Your task to perform on an android device: clear history in the chrome app Image 0: 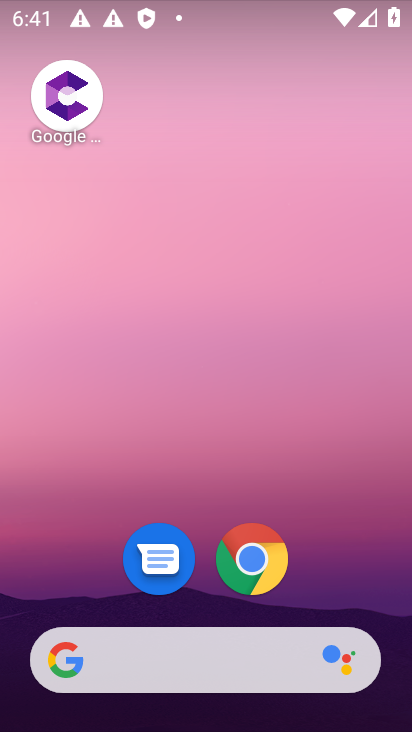
Step 0: click (252, 559)
Your task to perform on an android device: clear history in the chrome app Image 1: 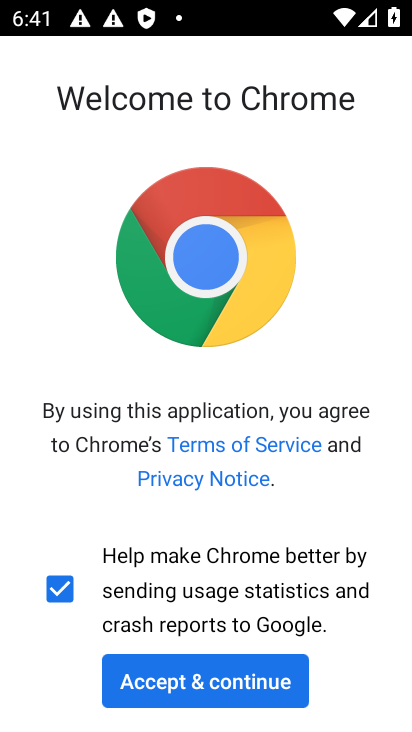
Step 1: click (190, 665)
Your task to perform on an android device: clear history in the chrome app Image 2: 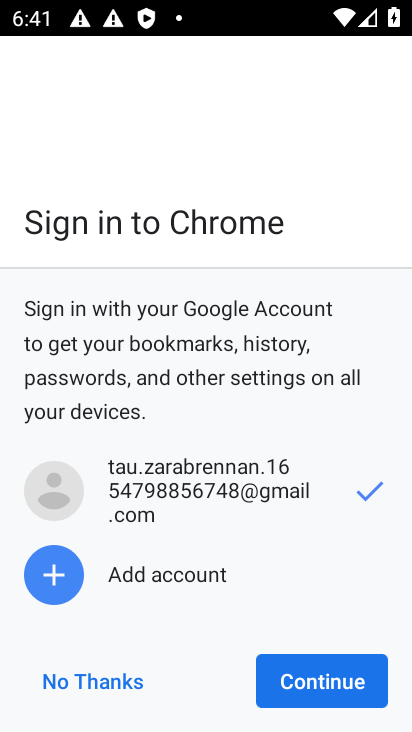
Step 2: click (296, 683)
Your task to perform on an android device: clear history in the chrome app Image 3: 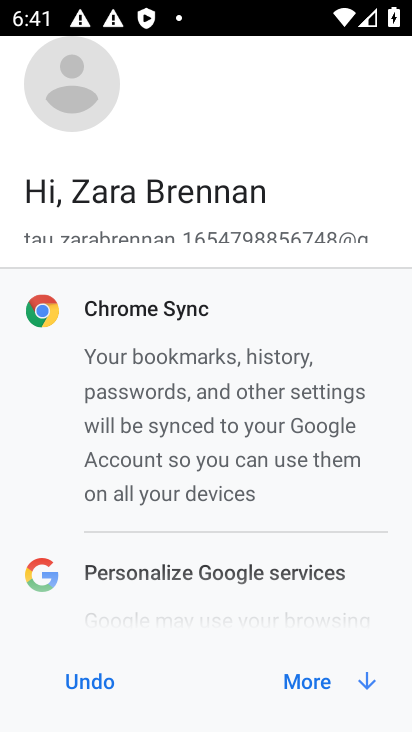
Step 3: click (296, 683)
Your task to perform on an android device: clear history in the chrome app Image 4: 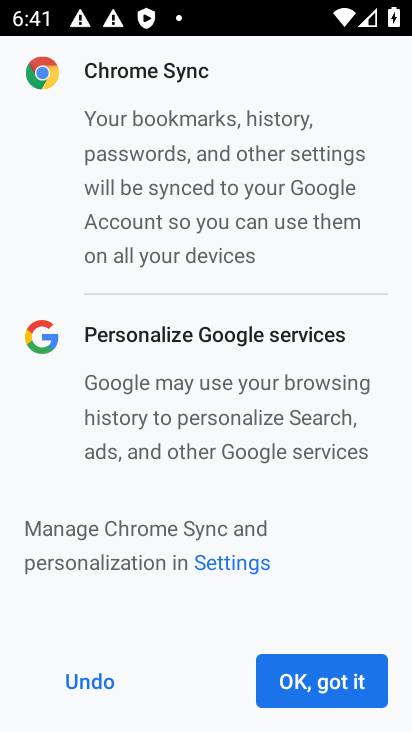
Step 4: click (296, 683)
Your task to perform on an android device: clear history in the chrome app Image 5: 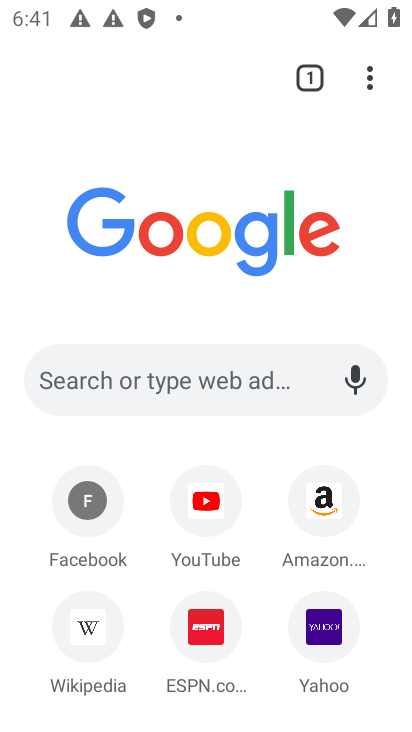
Step 5: click (369, 84)
Your task to perform on an android device: clear history in the chrome app Image 6: 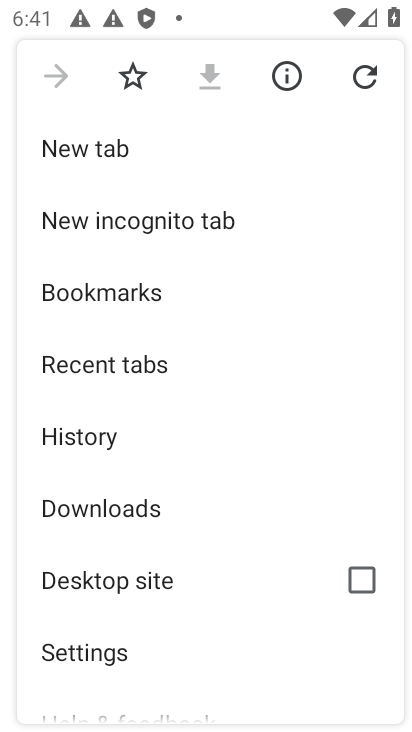
Step 6: click (102, 427)
Your task to perform on an android device: clear history in the chrome app Image 7: 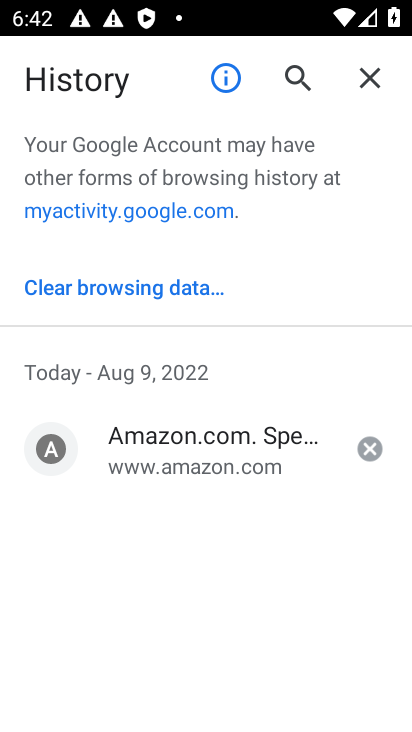
Step 7: click (127, 284)
Your task to perform on an android device: clear history in the chrome app Image 8: 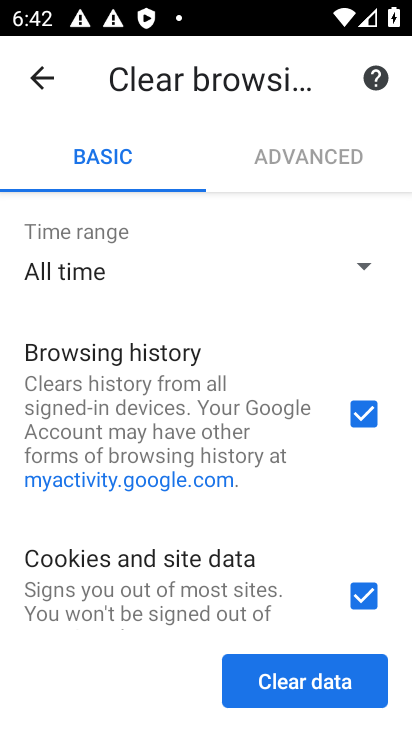
Step 8: drag from (290, 537) to (290, 202)
Your task to perform on an android device: clear history in the chrome app Image 9: 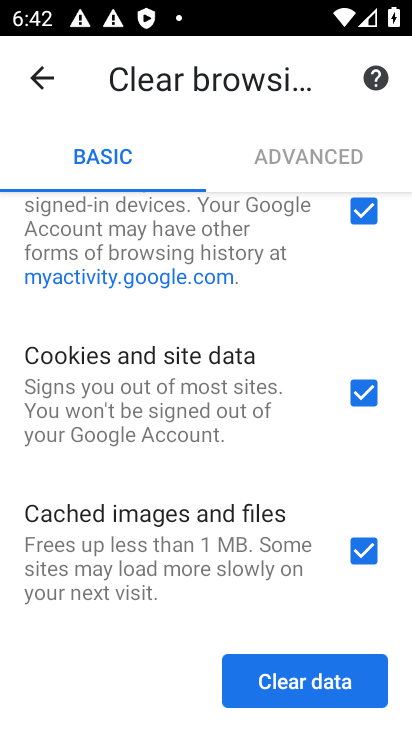
Step 9: click (264, 668)
Your task to perform on an android device: clear history in the chrome app Image 10: 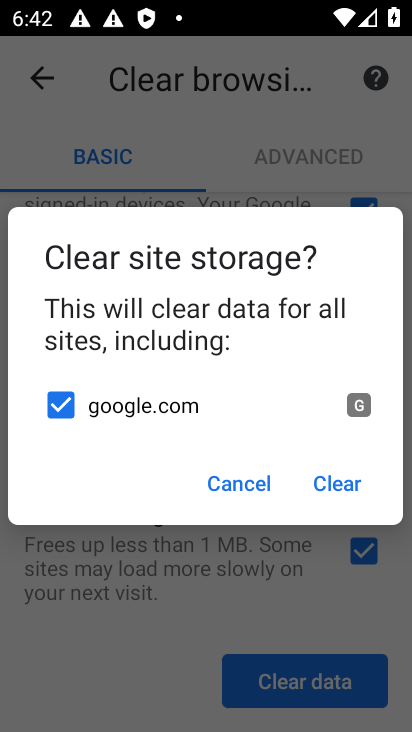
Step 10: click (337, 487)
Your task to perform on an android device: clear history in the chrome app Image 11: 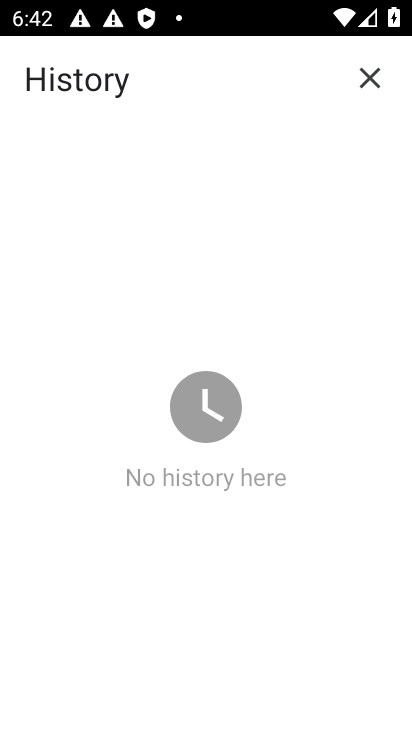
Step 11: task complete